Your task to perform on an android device: toggle notifications settings in the gmail app Image 0: 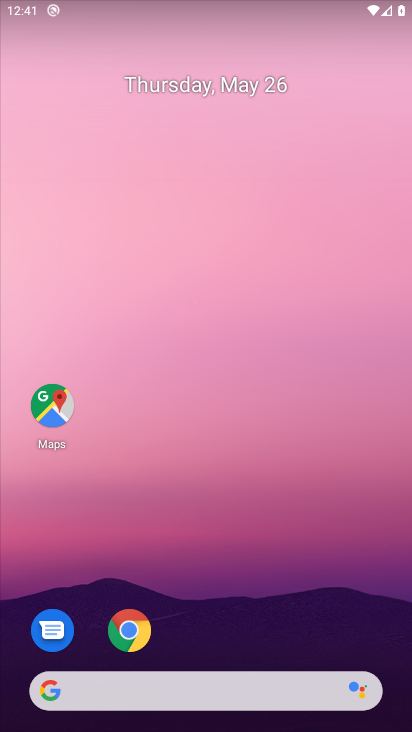
Step 0: drag from (223, 646) to (212, 27)
Your task to perform on an android device: toggle notifications settings in the gmail app Image 1: 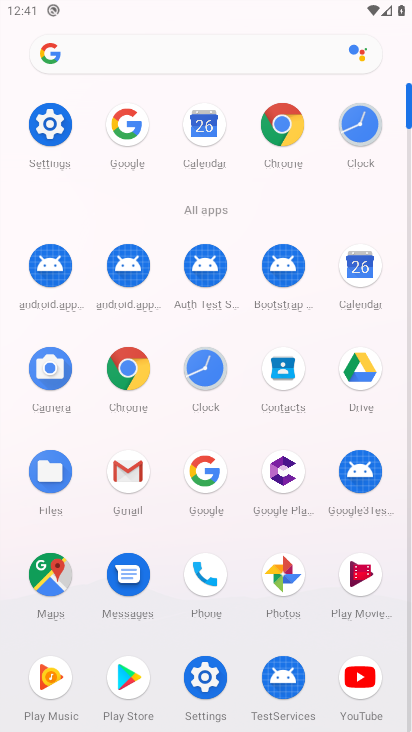
Step 1: click (128, 464)
Your task to perform on an android device: toggle notifications settings in the gmail app Image 2: 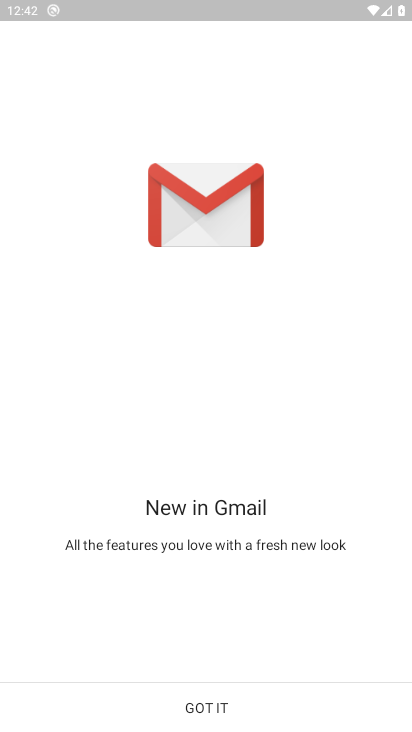
Step 2: click (210, 699)
Your task to perform on an android device: toggle notifications settings in the gmail app Image 3: 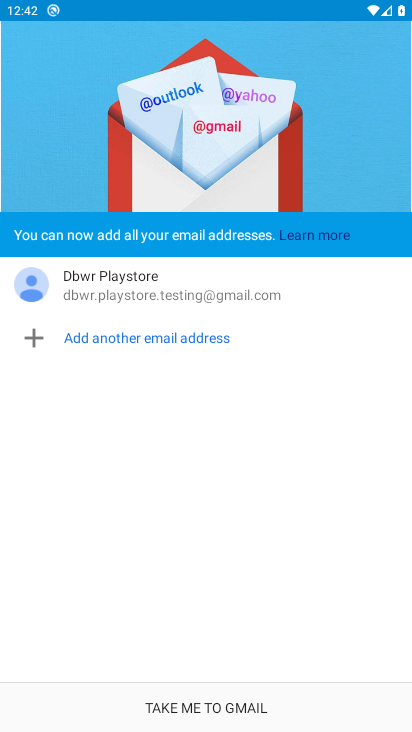
Step 3: click (208, 700)
Your task to perform on an android device: toggle notifications settings in the gmail app Image 4: 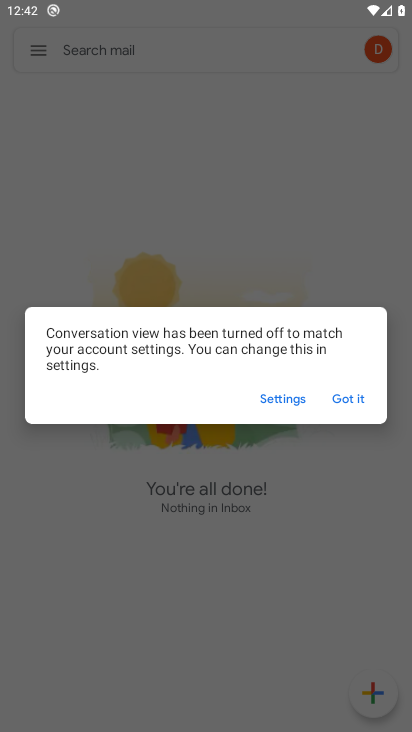
Step 4: click (337, 400)
Your task to perform on an android device: toggle notifications settings in the gmail app Image 5: 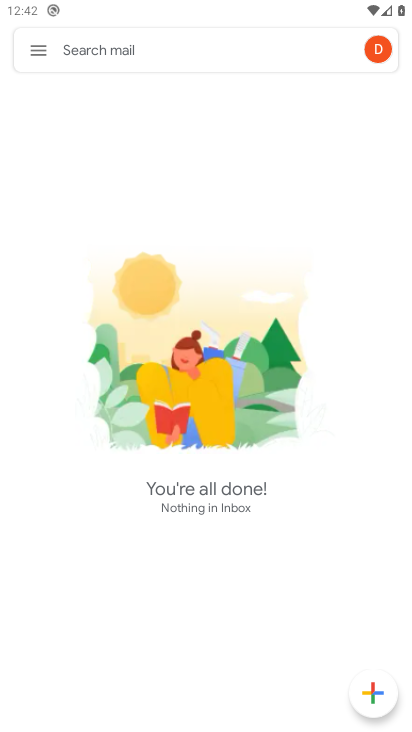
Step 5: click (35, 56)
Your task to perform on an android device: toggle notifications settings in the gmail app Image 6: 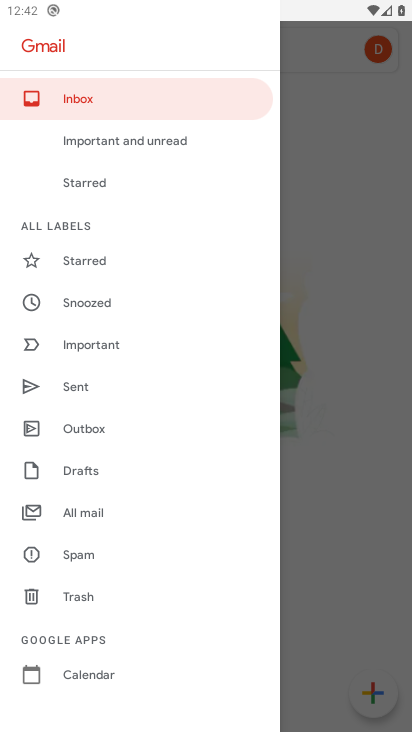
Step 6: drag from (90, 599) to (115, 122)
Your task to perform on an android device: toggle notifications settings in the gmail app Image 7: 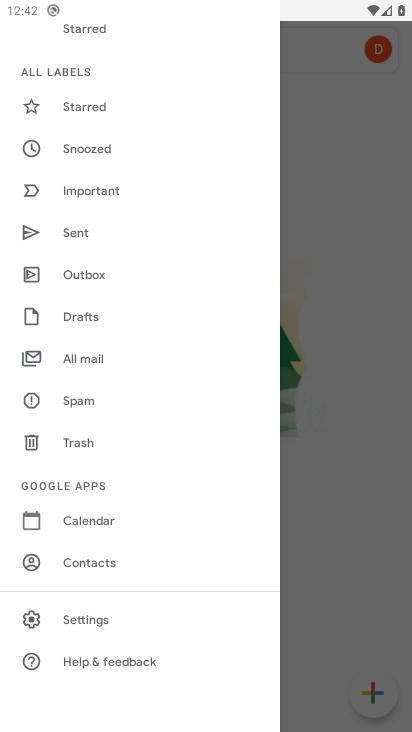
Step 7: drag from (101, 603) to (123, 251)
Your task to perform on an android device: toggle notifications settings in the gmail app Image 8: 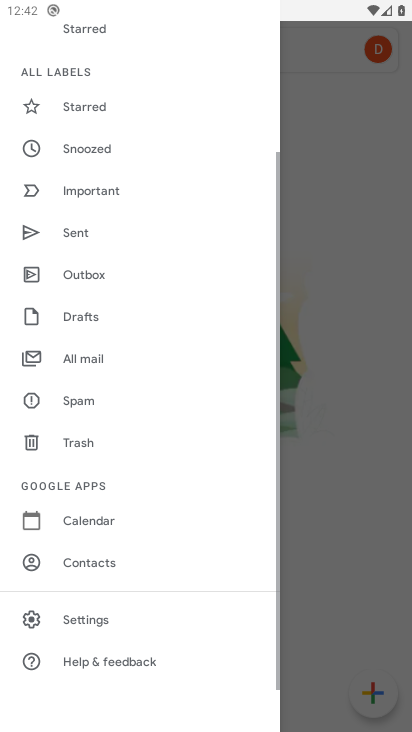
Step 8: click (88, 615)
Your task to perform on an android device: toggle notifications settings in the gmail app Image 9: 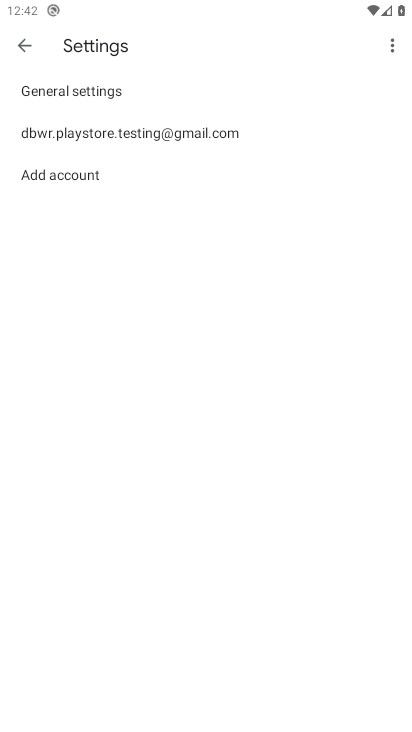
Step 9: click (114, 93)
Your task to perform on an android device: toggle notifications settings in the gmail app Image 10: 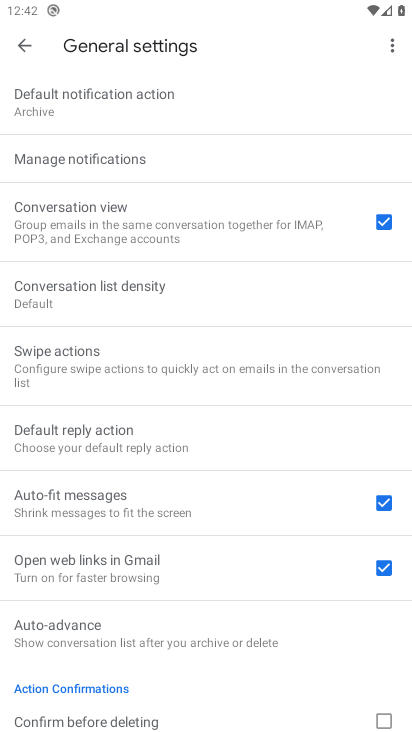
Step 10: click (137, 152)
Your task to perform on an android device: toggle notifications settings in the gmail app Image 11: 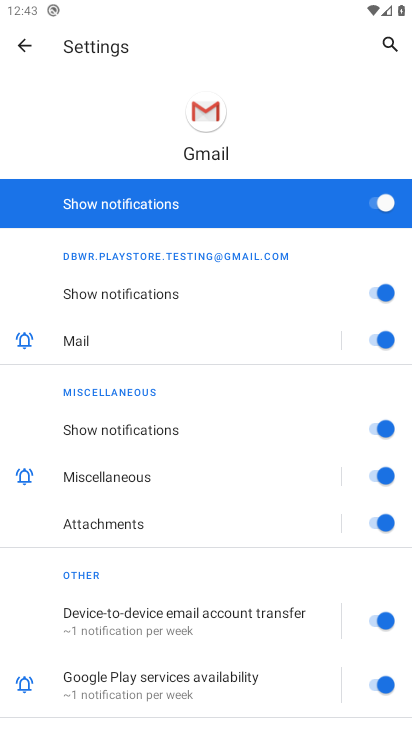
Step 11: click (367, 203)
Your task to perform on an android device: toggle notifications settings in the gmail app Image 12: 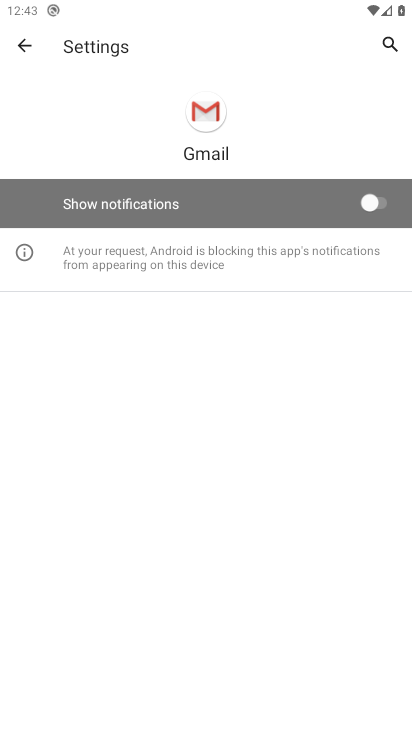
Step 12: task complete